Your task to perform on an android device: Open Yahoo.com Image 0: 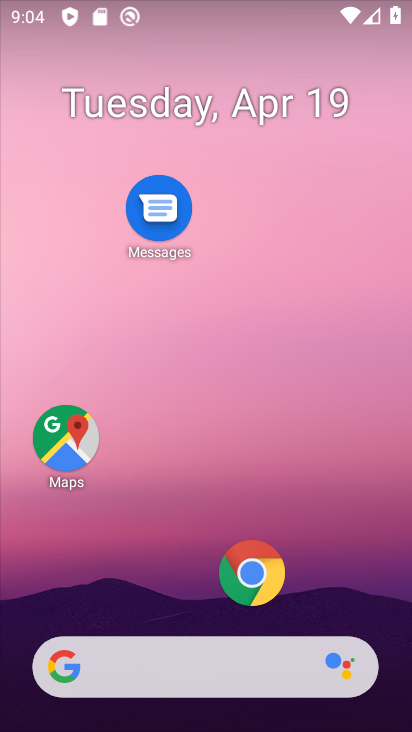
Step 0: click (250, 574)
Your task to perform on an android device: Open Yahoo.com Image 1: 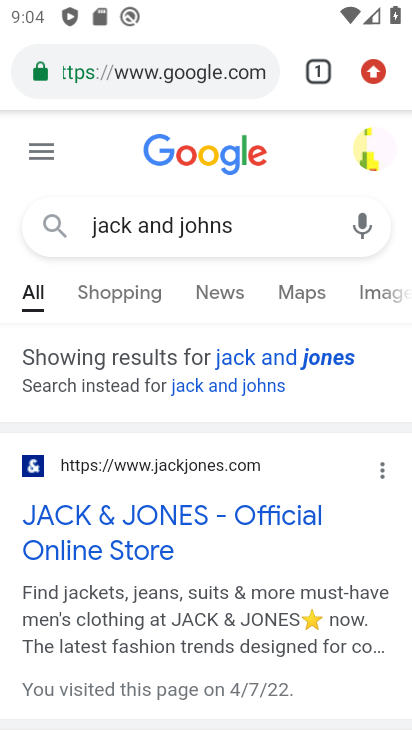
Step 1: click (320, 73)
Your task to perform on an android device: Open Yahoo.com Image 2: 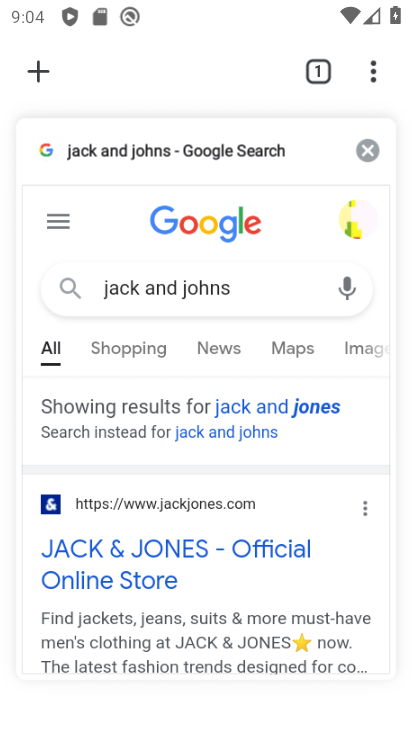
Step 2: click (35, 63)
Your task to perform on an android device: Open Yahoo.com Image 3: 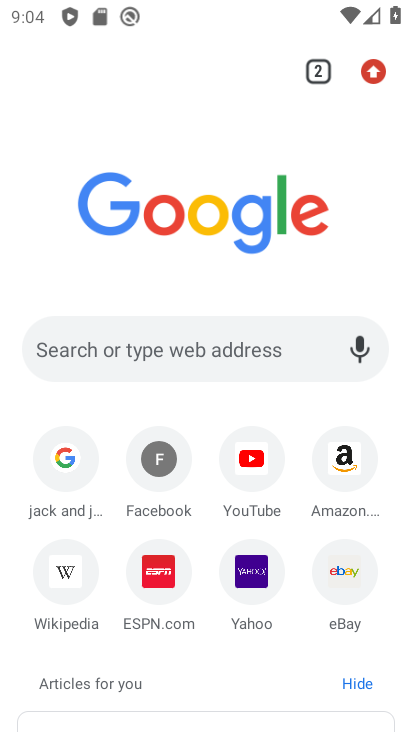
Step 3: click (250, 579)
Your task to perform on an android device: Open Yahoo.com Image 4: 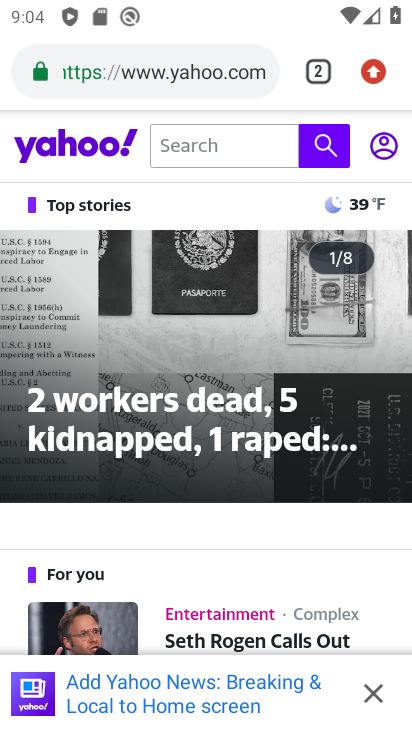
Step 4: task complete